Your task to perform on an android device: Open notification settings Image 0: 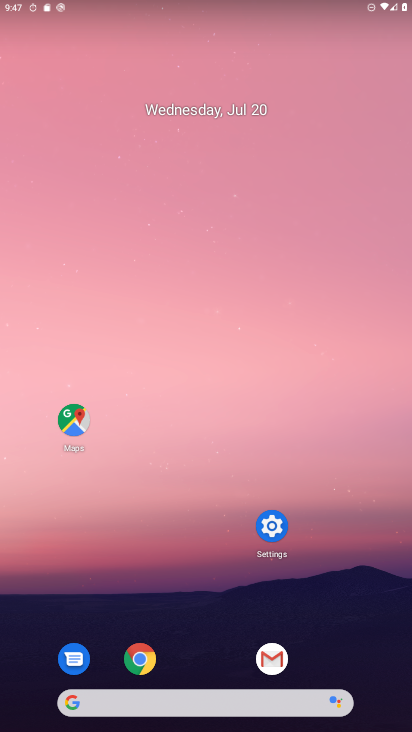
Step 0: click (274, 540)
Your task to perform on an android device: Open notification settings Image 1: 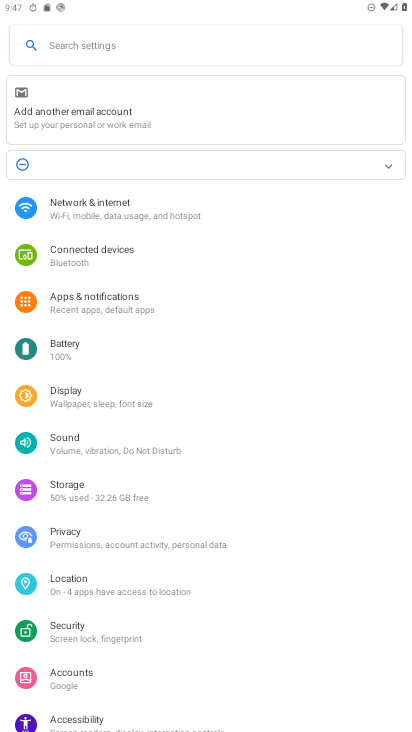
Step 1: click (92, 49)
Your task to perform on an android device: Open notification settings Image 2: 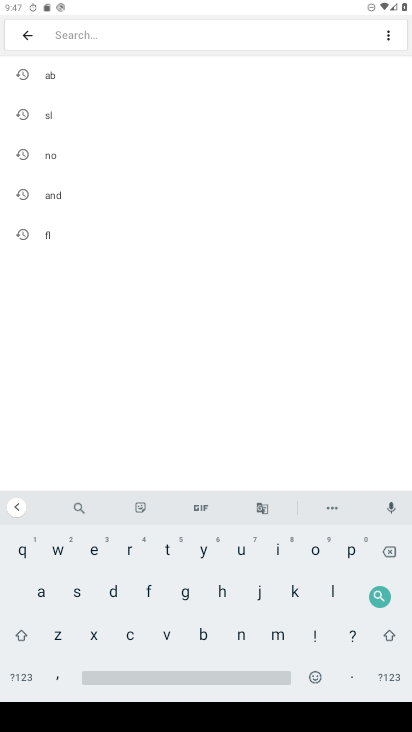
Step 2: click (244, 632)
Your task to perform on an android device: Open notification settings Image 3: 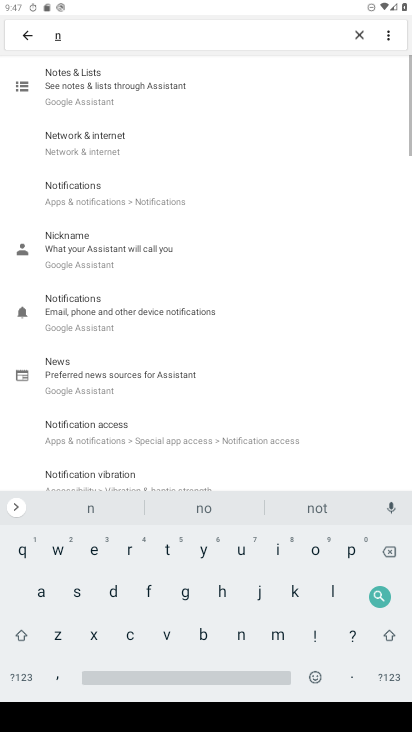
Step 3: click (311, 550)
Your task to perform on an android device: Open notification settings Image 4: 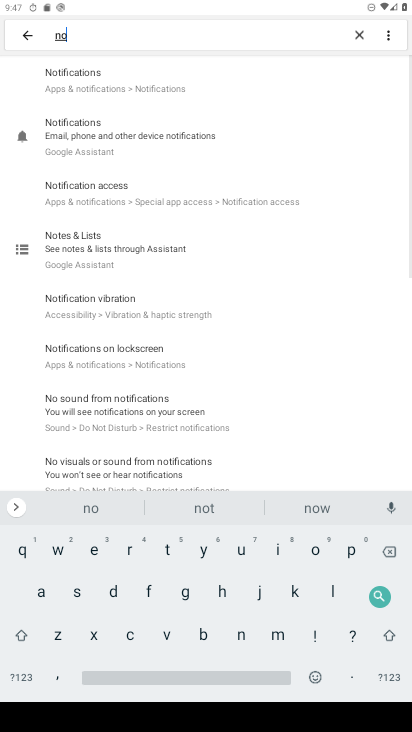
Step 4: click (97, 87)
Your task to perform on an android device: Open notification settings Image 5: 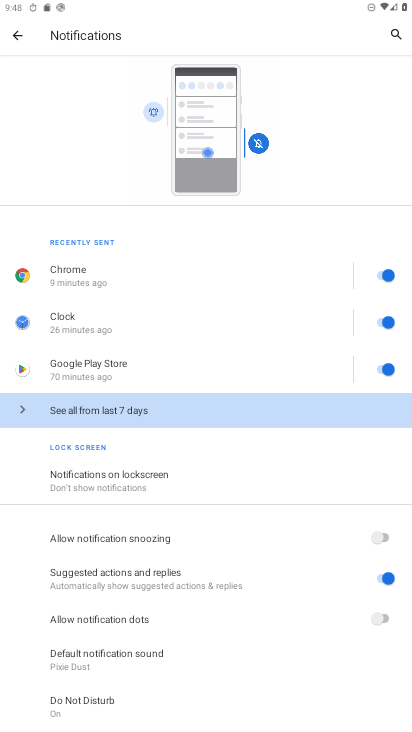
Step 5: click (140, 481)
Your task to perform on an android device: Open notification settings Image 6: 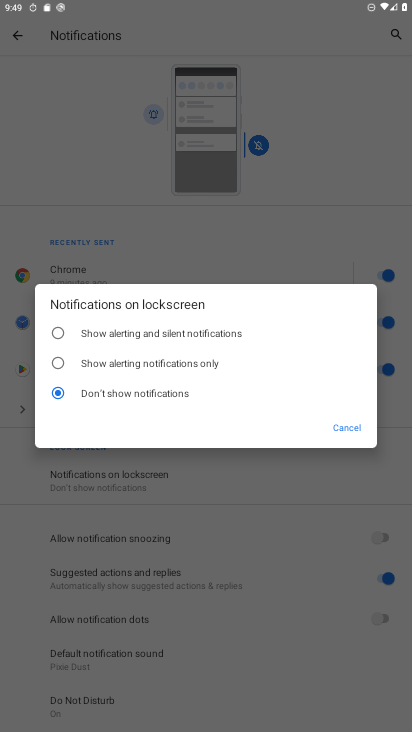
Step 6: task complete